Your task to perform on an android device: choose inbox layout in the gmail app Image 0: 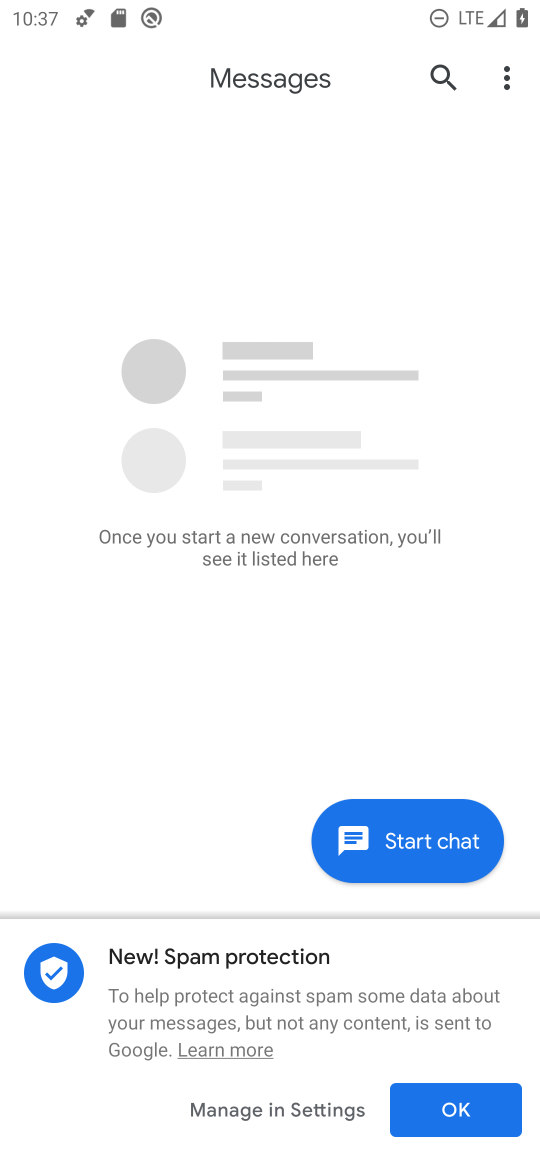
Step 0: press home button
Your task to perform on an android device: choose inbox layout in the gmail app Image 1: 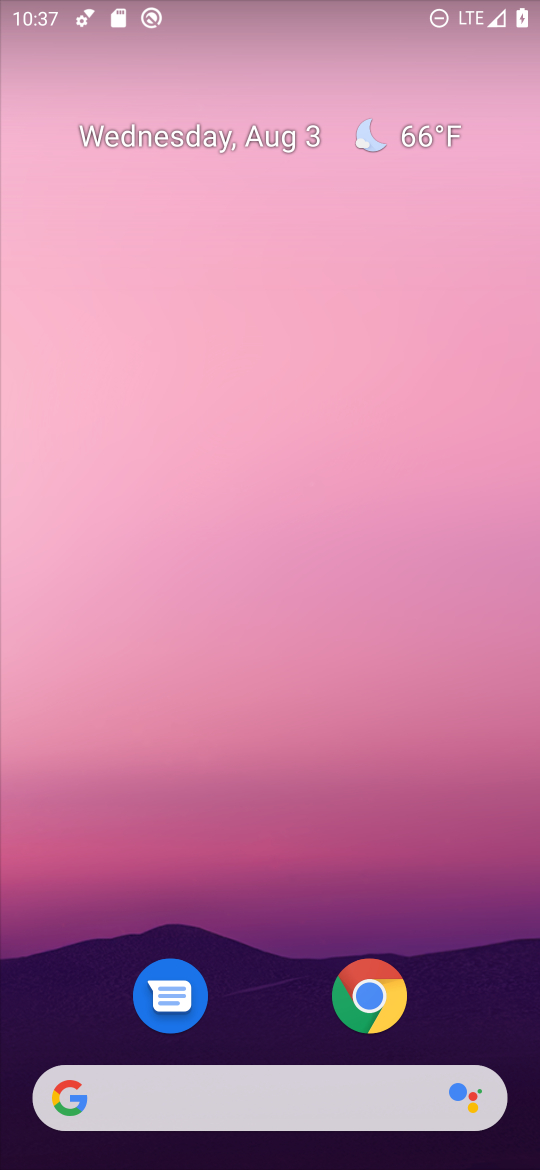
Step 1: drag from (300, 856) to (272, 47)
Your task to perform on an android device: choose inbox layout in the gmail app Image 2: 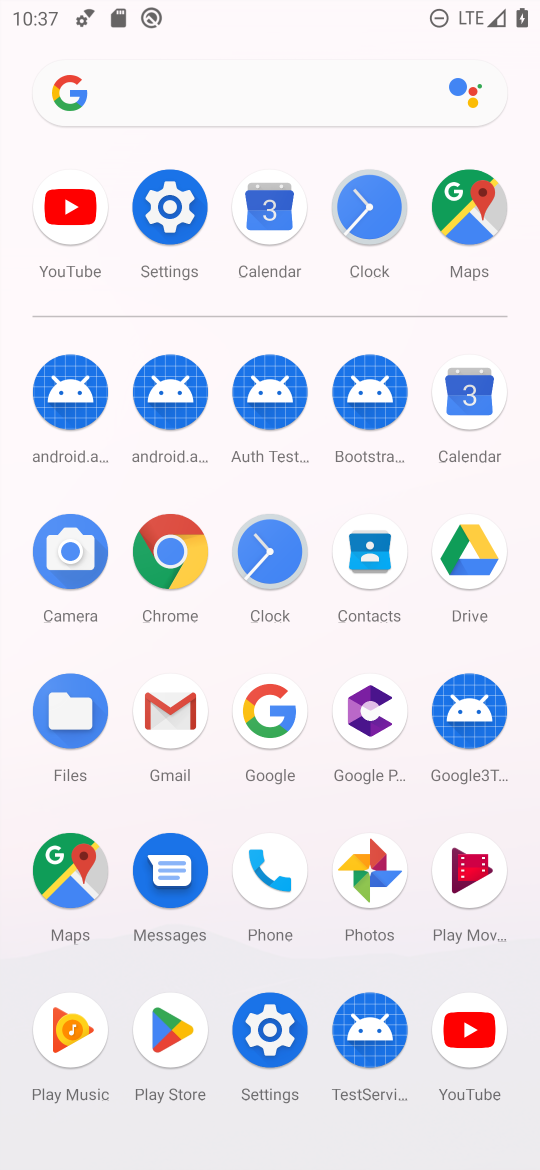
Step 2: click (180, 723)
Your task to perform on an android device: choose inbox layout in the gmail app Image 3: 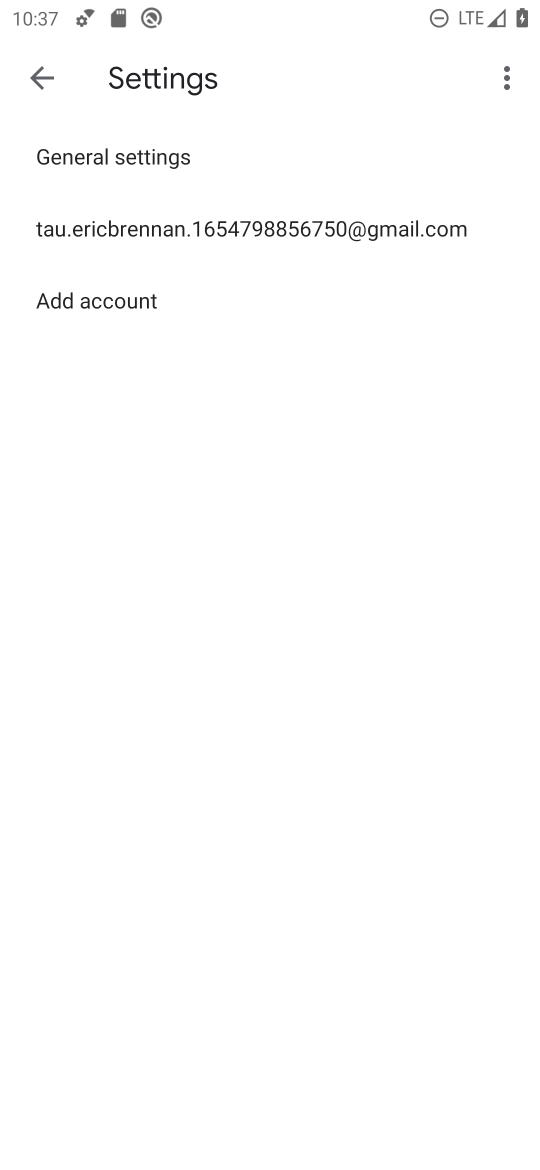
Step 3: click (332, 231)
Your task to perform on an android device: choose inbox layout in the gmail app Image 4: 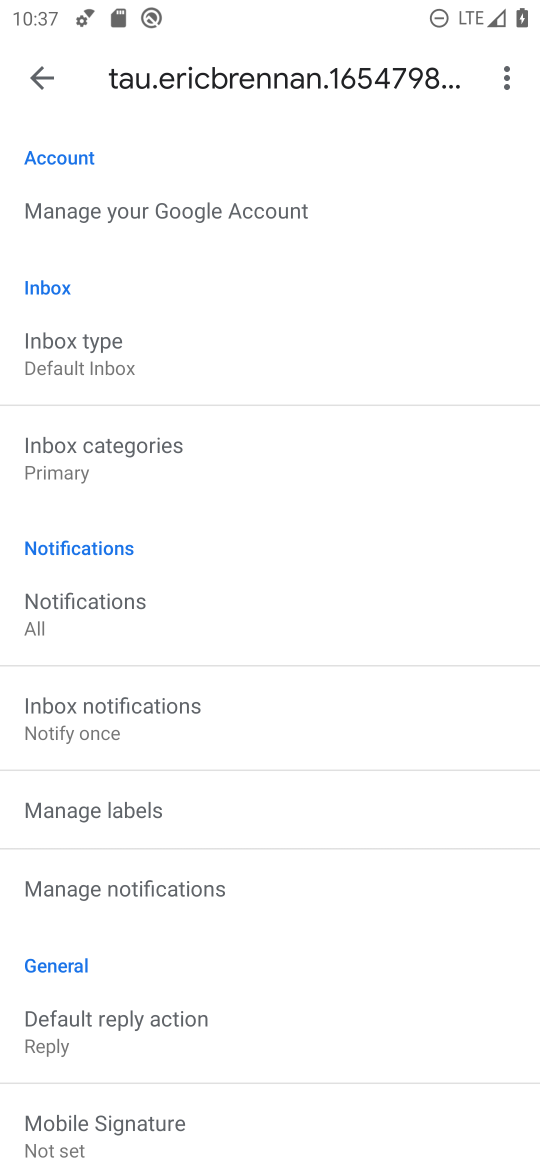
Step 4: click (104, 349)
Your task to perform on an android device: choose inbox layout in the gmail app Image 5: 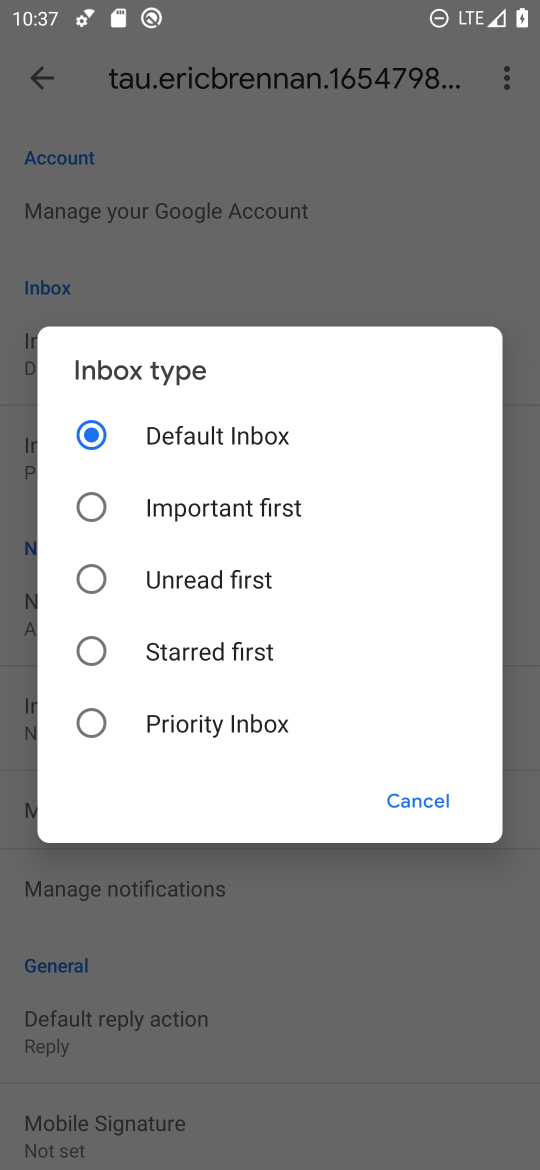
Step 5: click (90, 504)
Your task to perform on an android device: choose inbox layout in the gmail app Image 6: 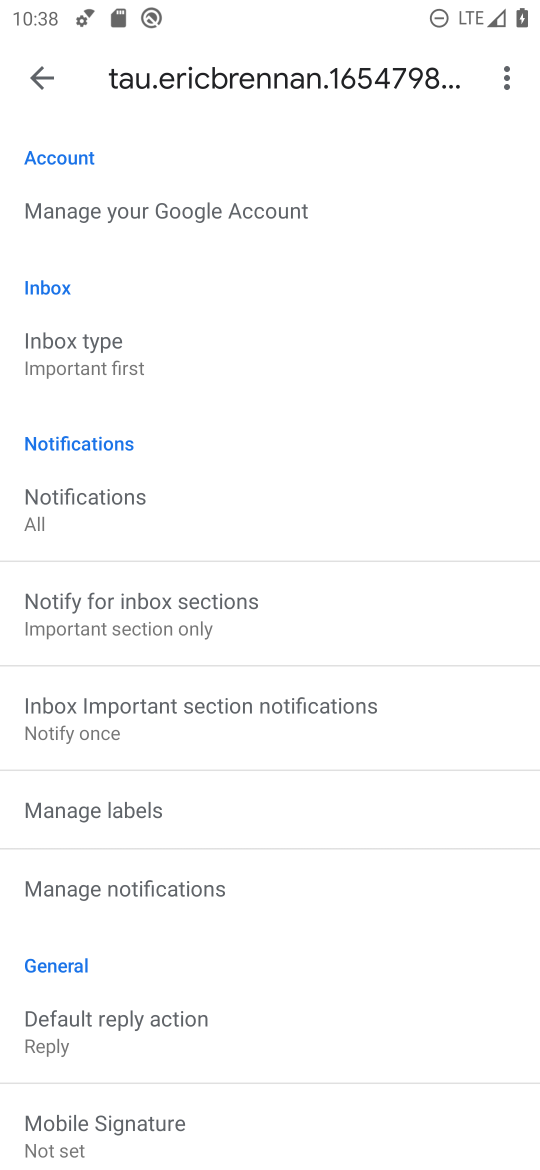
Step 6: task complete